Your task to perform on an android device: install app "McDonald's" Image 0: 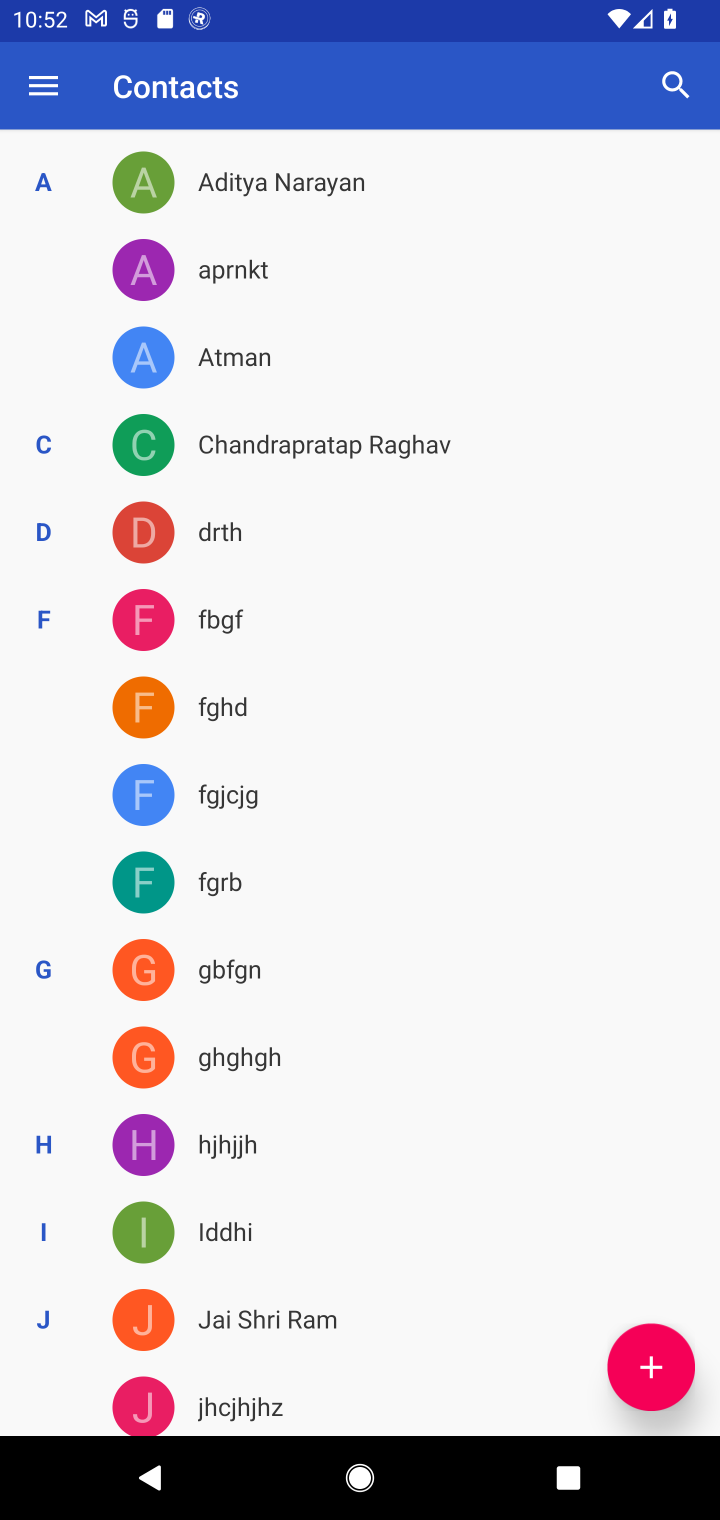
Step 0: press home button
Your task to perform on an android device: install app "McDonald's" Image 1: 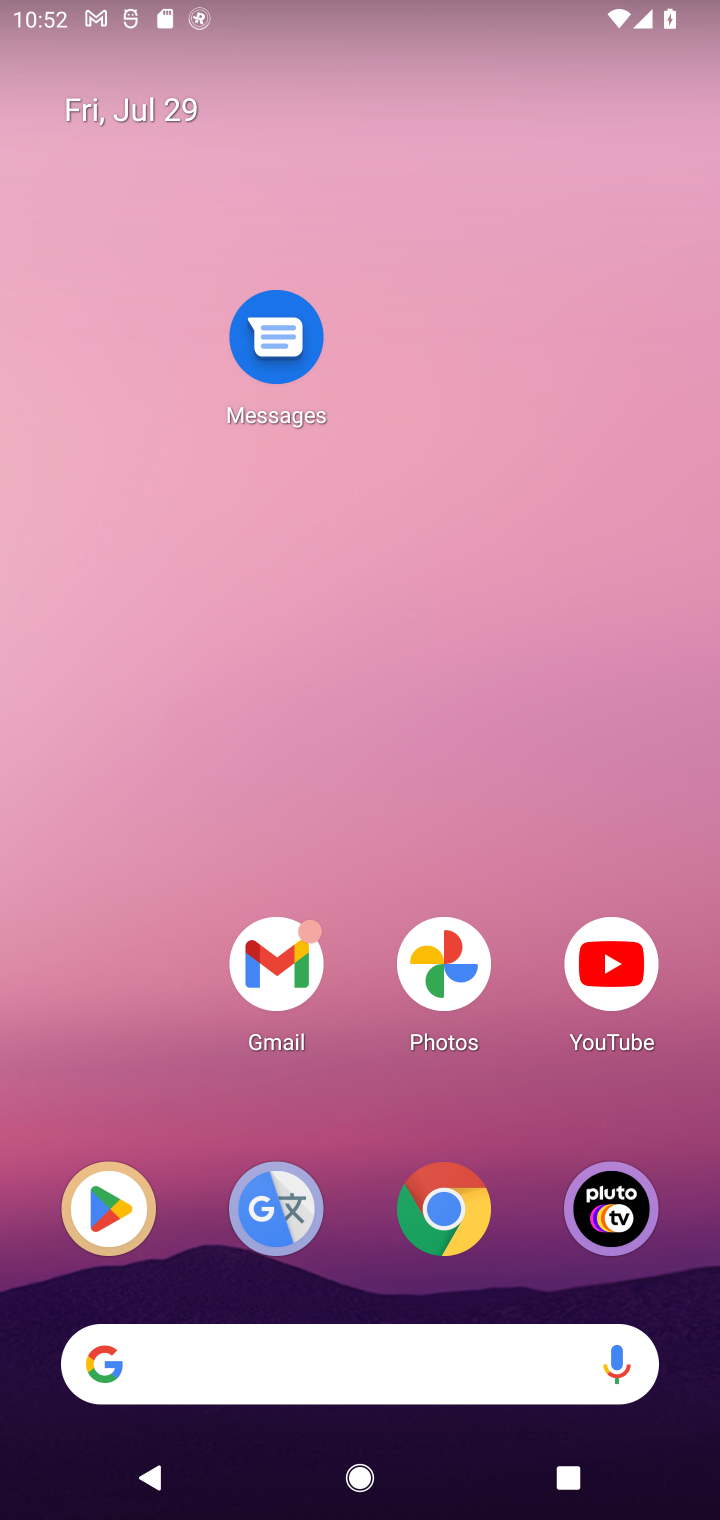
Step 1: drag from (247, 1349) to (348, 265)
Your task to perform on an android device: install app "McDonald's" Image 2: 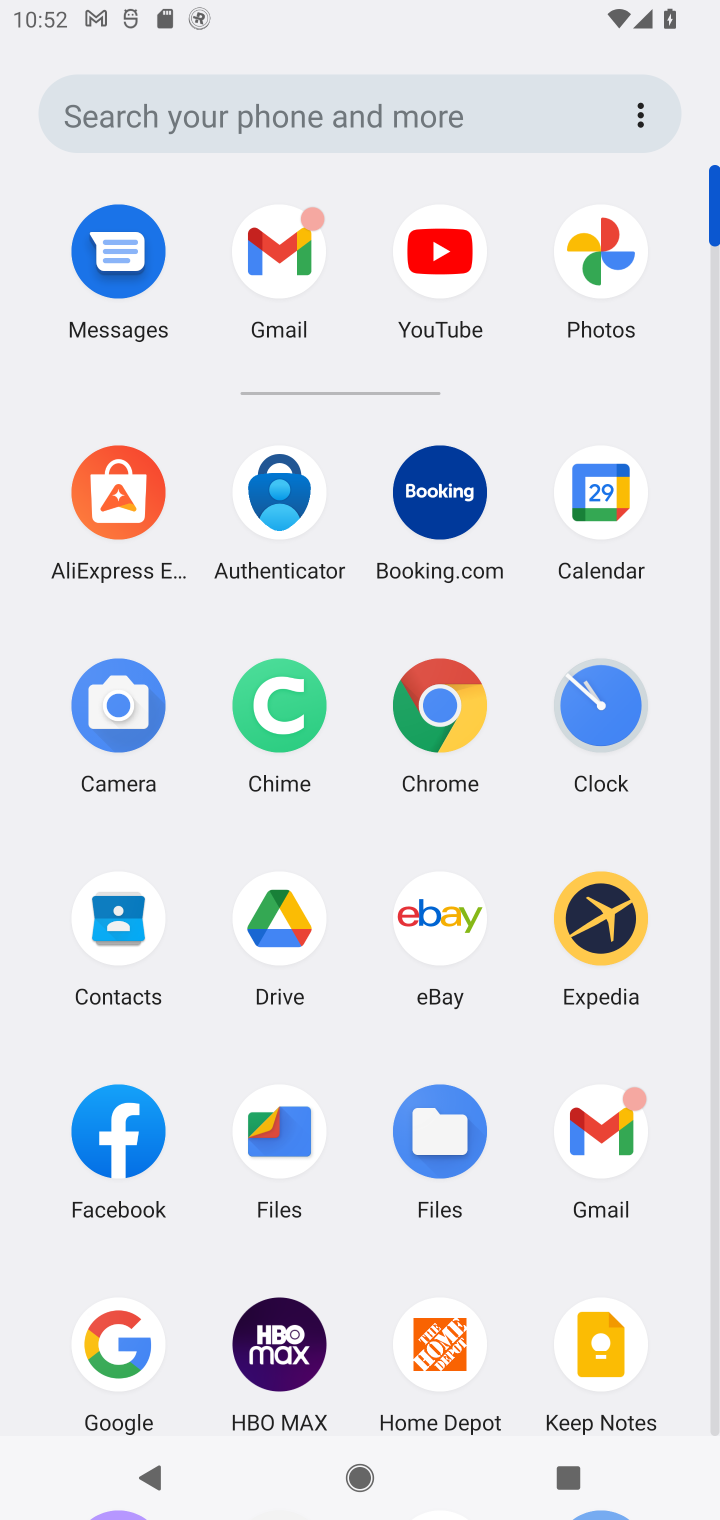
Step 2: drag from (424, 1213) to (439, 479)
Your task to perform on an android device: install app "McDonald's" Image 3: 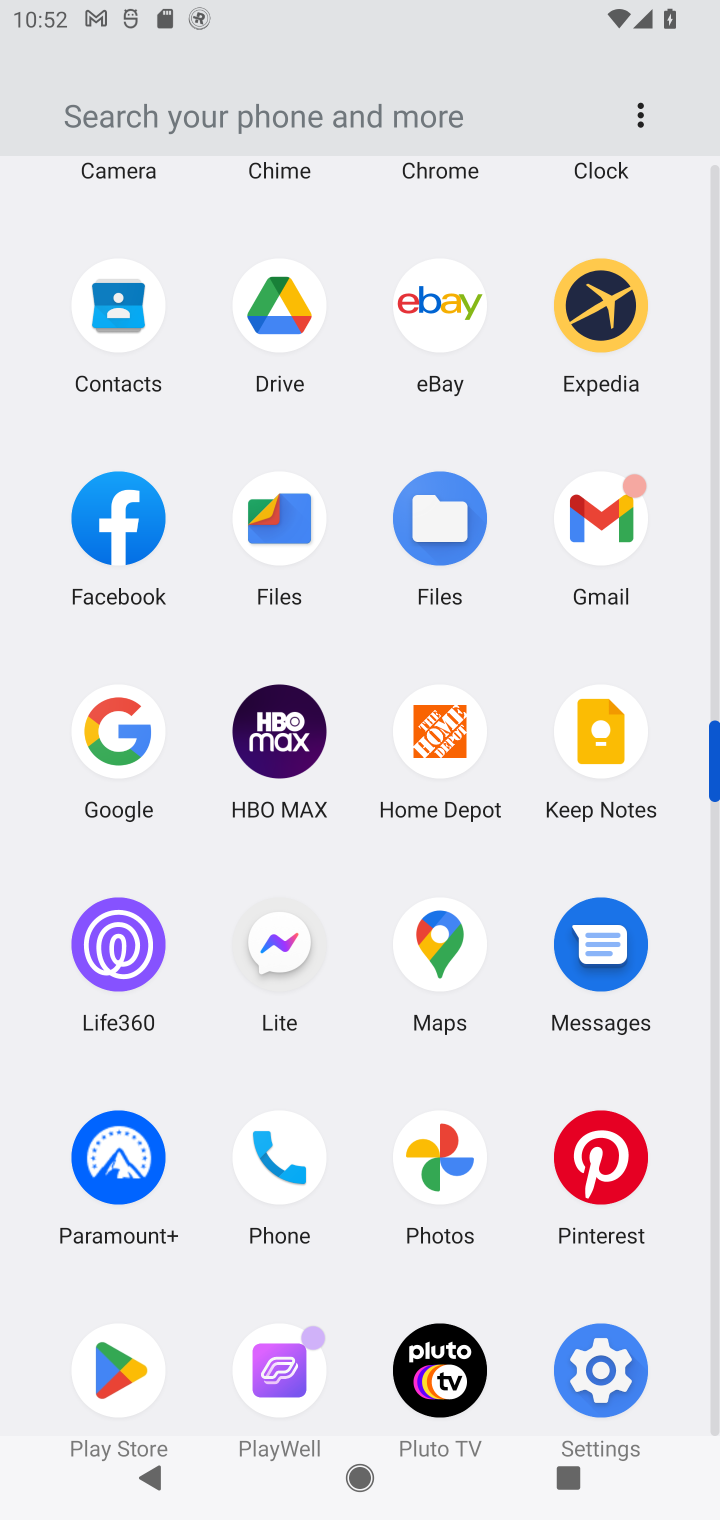
Step 3: drag from (360, 1253) to (378, 943)
Your task to perform on an android device: install app "McDonald's" Image 4: 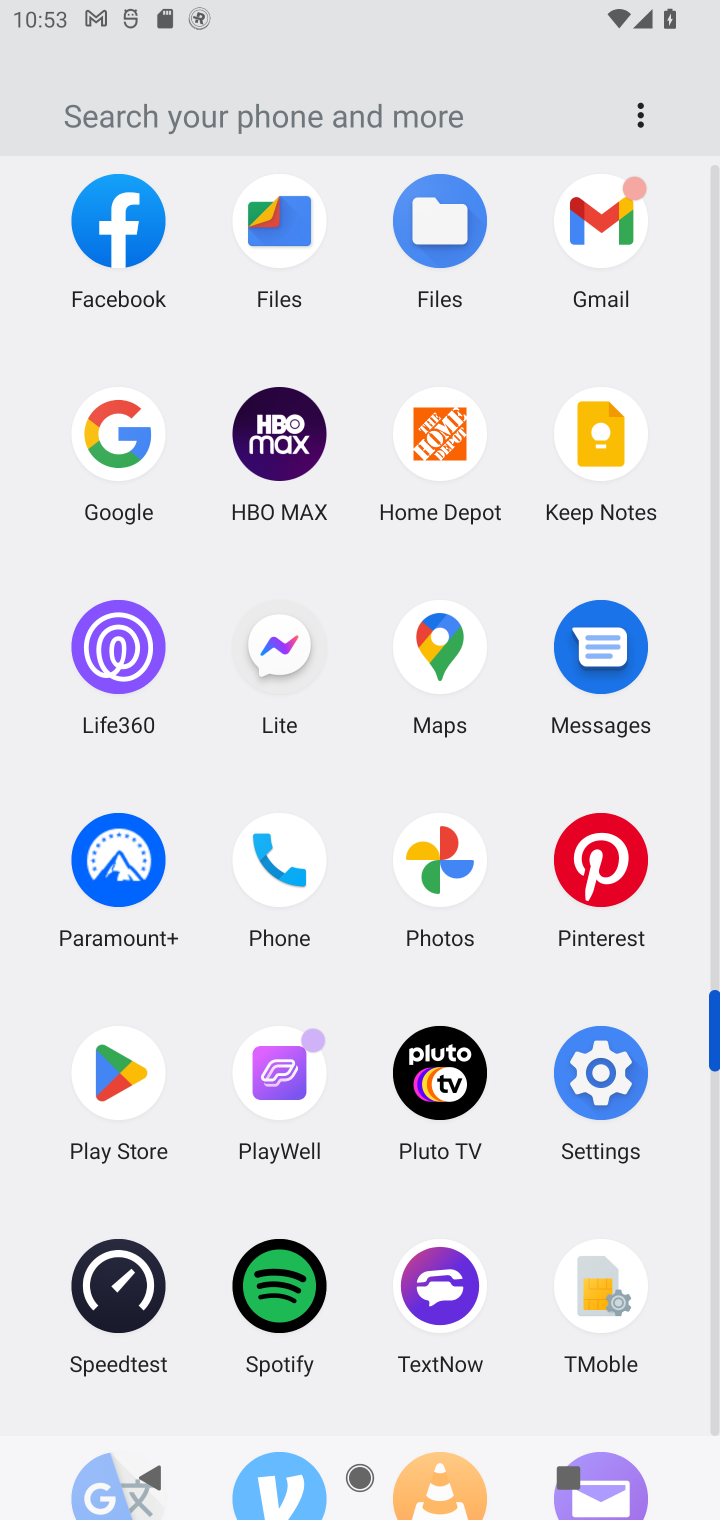
Step 4: click (118, 1086)
Your task to perform on an android device: install app "McDonald's" Image 5: 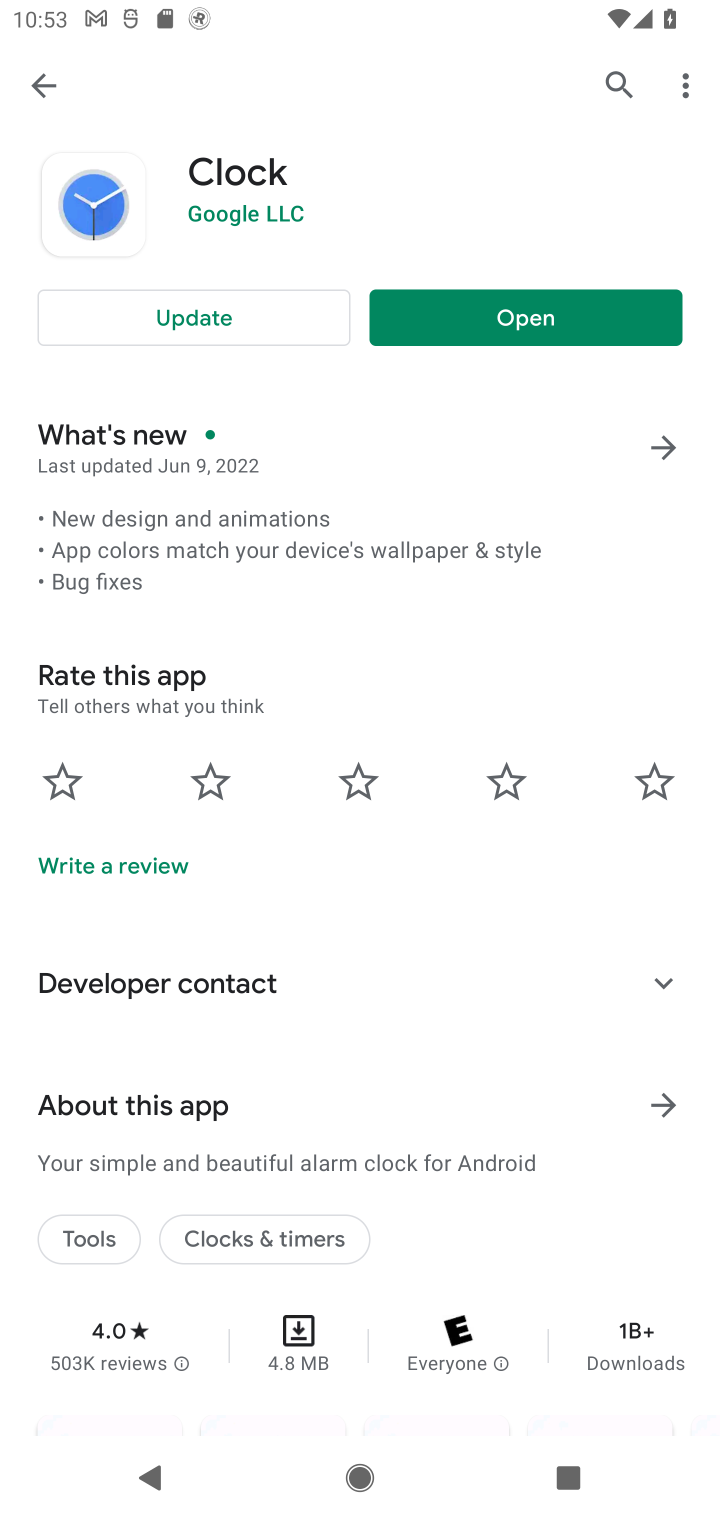
Step 5: click (614, 77)
Your task to perform on an android device: install app "McDonald's" Image 6: 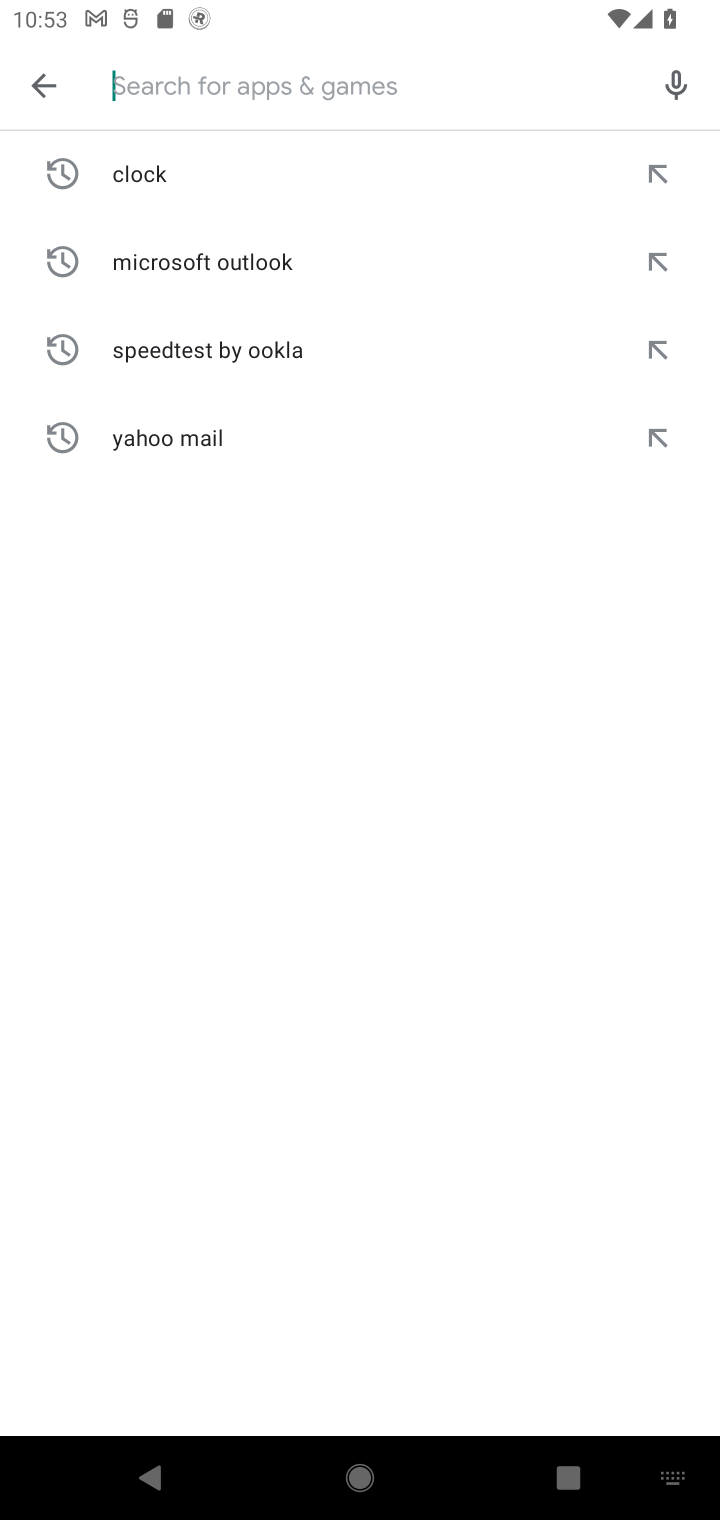
Step 6: type "McDonald's"
Your task to perform on an android device: install app "McDonald's" Image 7: 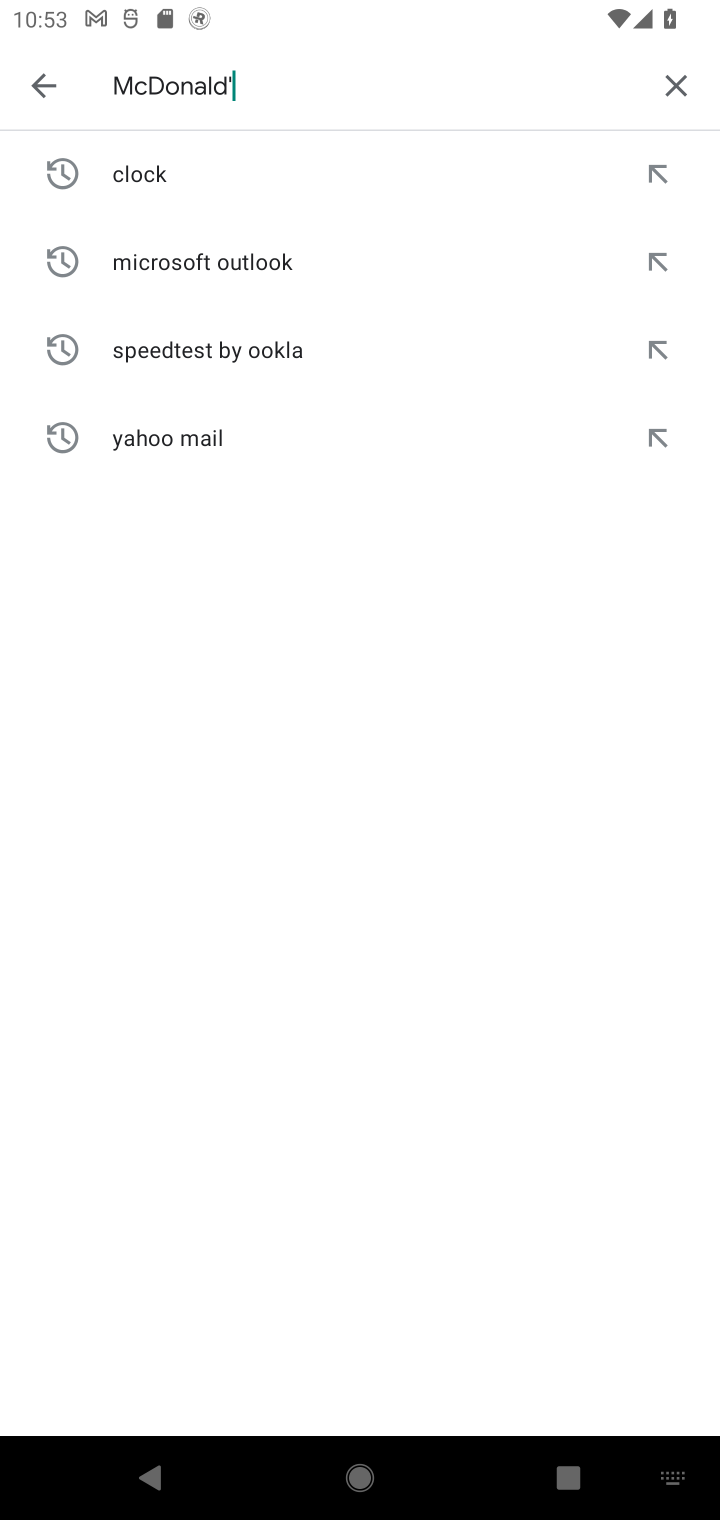
Step 7: type ""
Your task to perform on an android device: install app "McDonald's" Image 8: 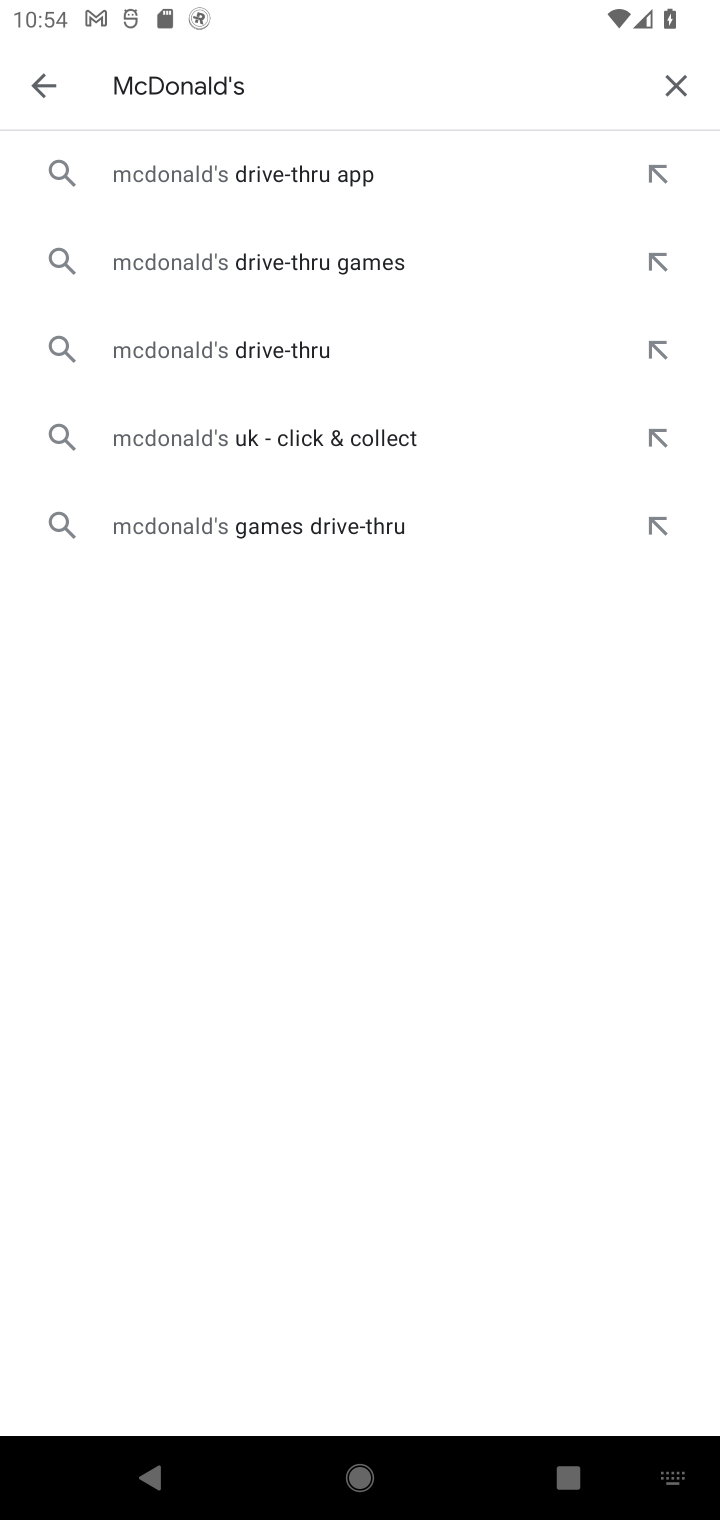
Step 8: click (317, 169)
Your task to perform on an android device: install app "McDonald's" Image 9: 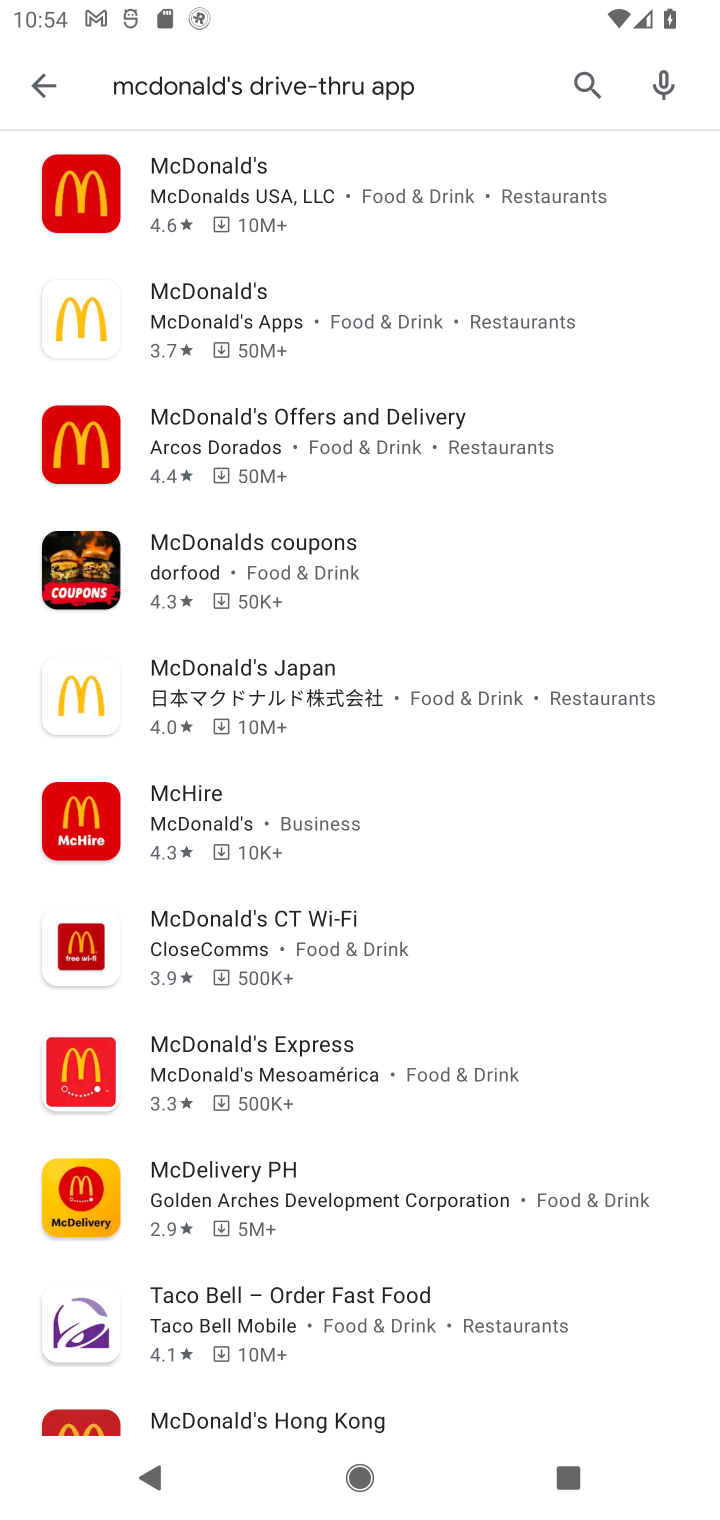
Step 9: click (234, 165)
Your task to perform on an android device: install app "McDonald's" Image 10: 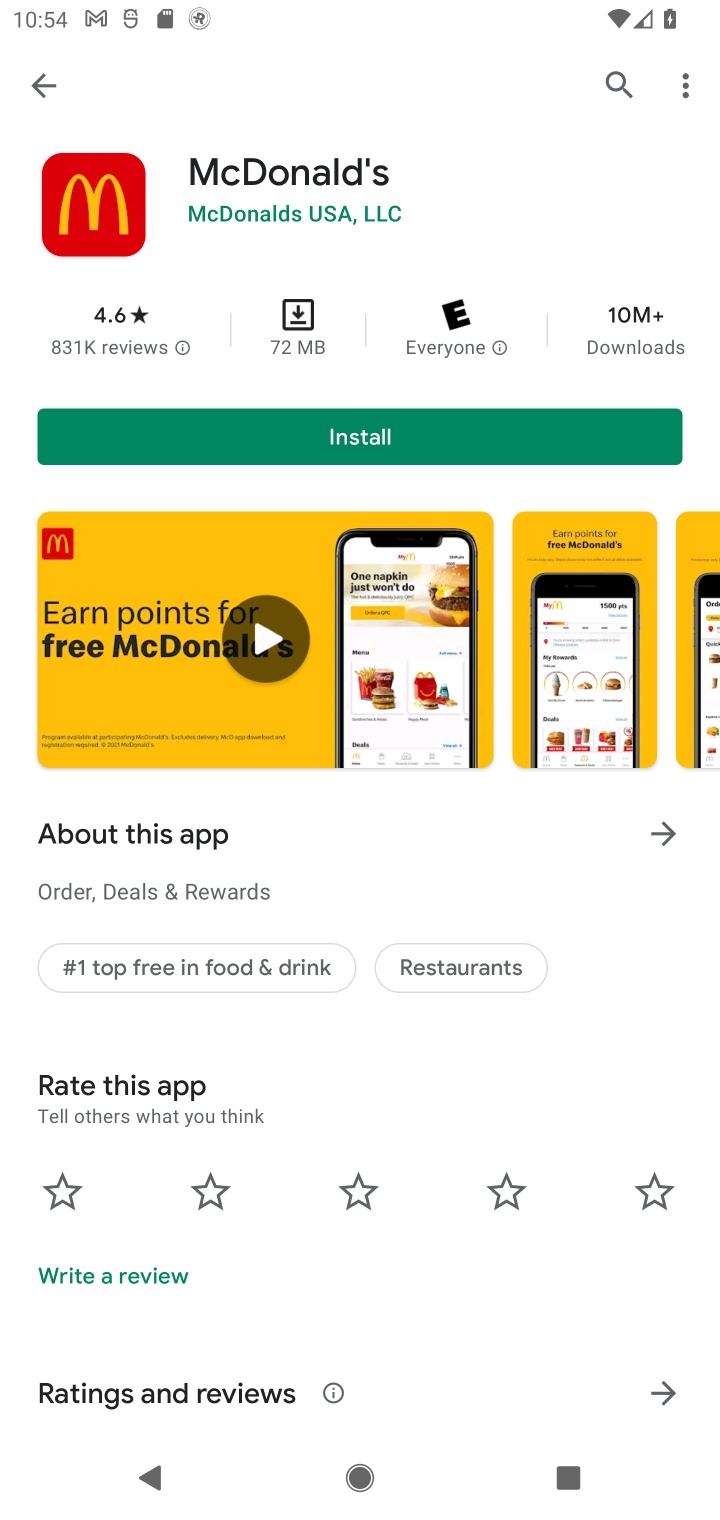
Step 10: click (580, 423)
Your task to perform on an android device: install app "McDonald's" Image 11: 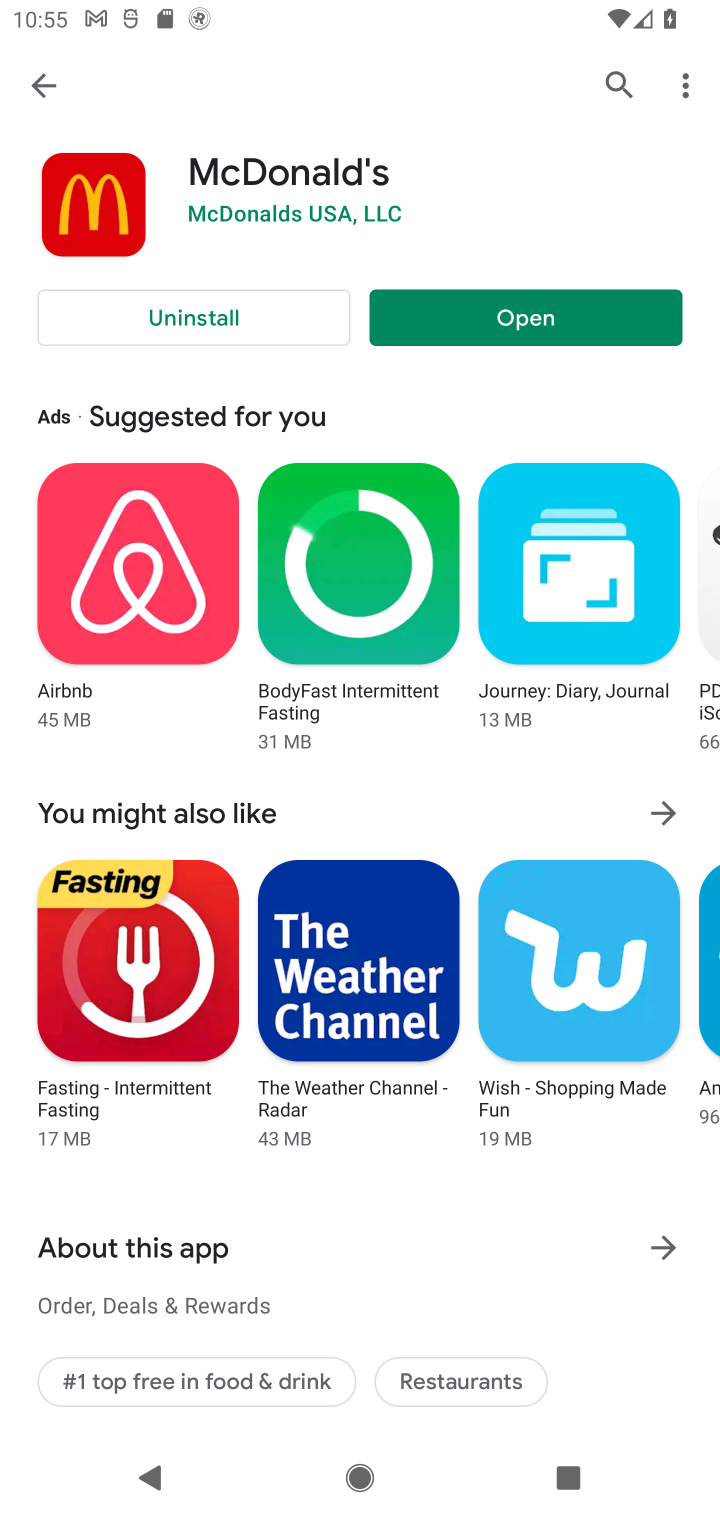
Step 11: task complete